Your task to perform on an android device: Go to Google Image 0: 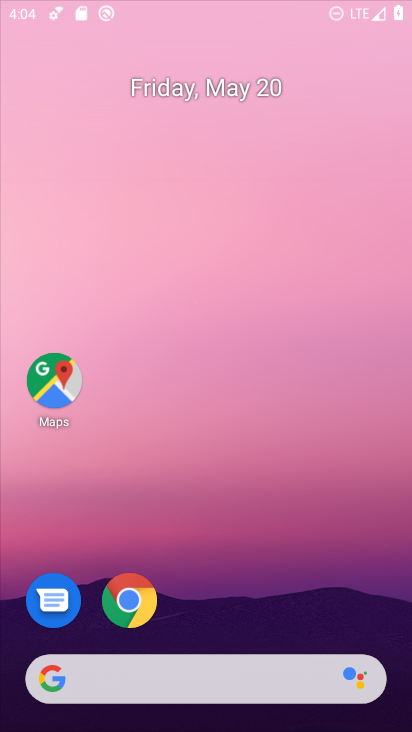
Step 0: drag from (239, 500) to (298, 132)
Your task to perform on an android device: Go to Google Image 1: 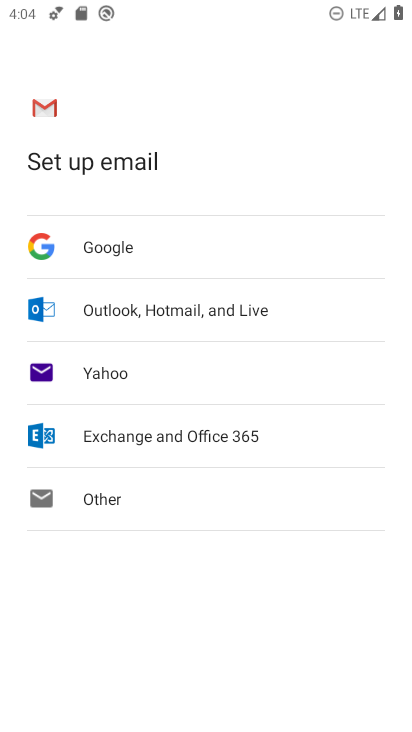
Step 1: press back button
Your task to perform on an android device: Go to Google Image 2: 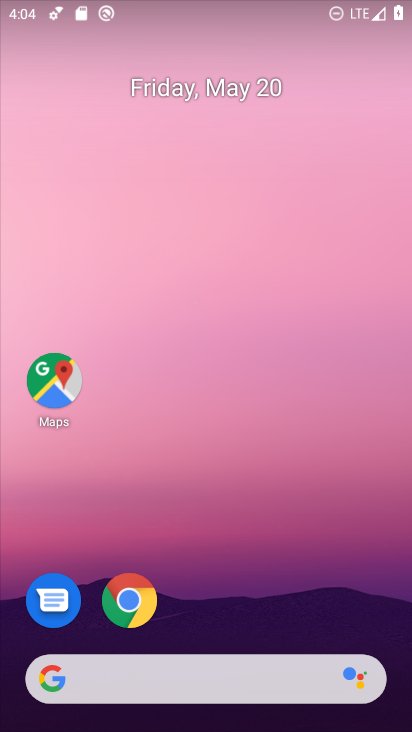
Step 2: drag from (244, 607) to (289, 37)
Your task to perform on an android device: Go to Google Image 3: 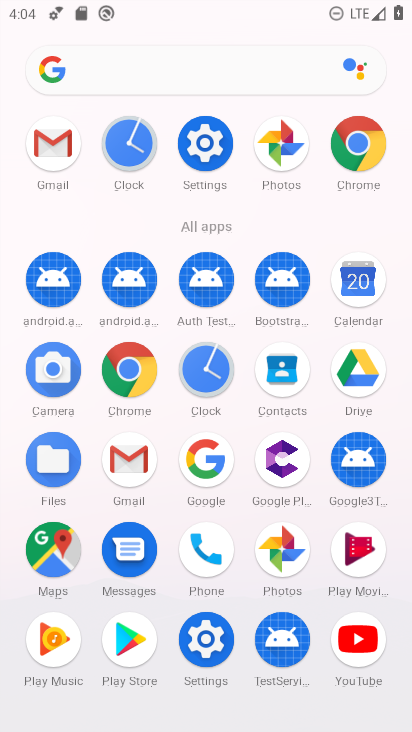
Step 3: click (196, 473)
Your task to perform on an android device: Go to Google Image 4: 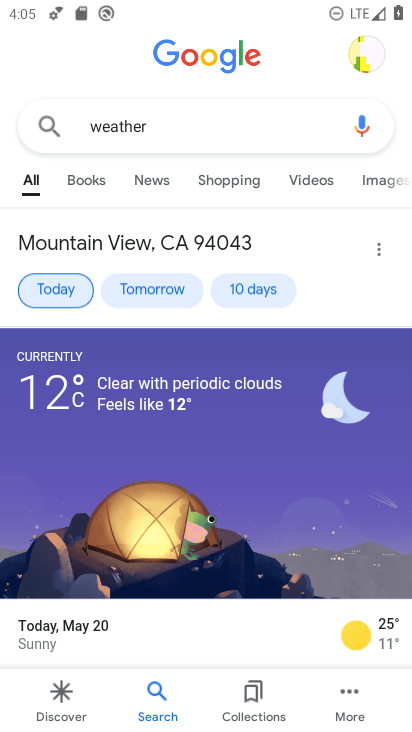
Step 4: task complete